Your task to perform on an android device: turn vacation reply on in the gmail app Image 0: 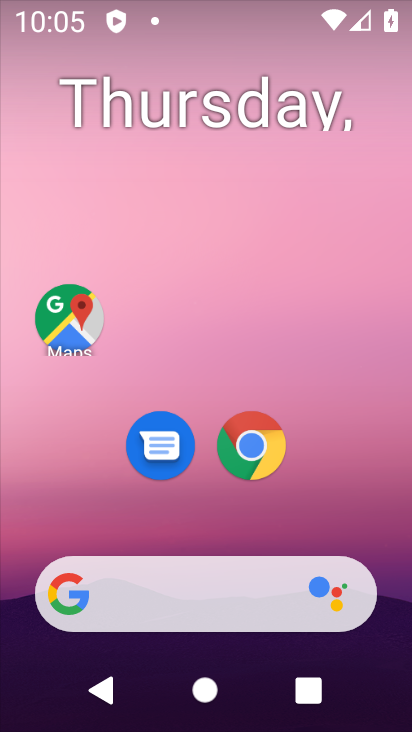
Step 0: drag from (332, 519) to (225, 58)
Your task to perform on an android device: turn vacation reply on in the gmail app Image 1: 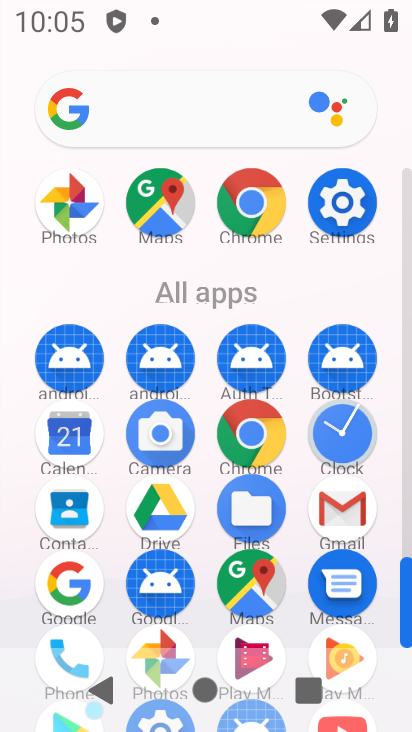
Step 1: click (338, 505)
Your task to perform on an android device: turn vacation reply on in the gmail app Image 2: 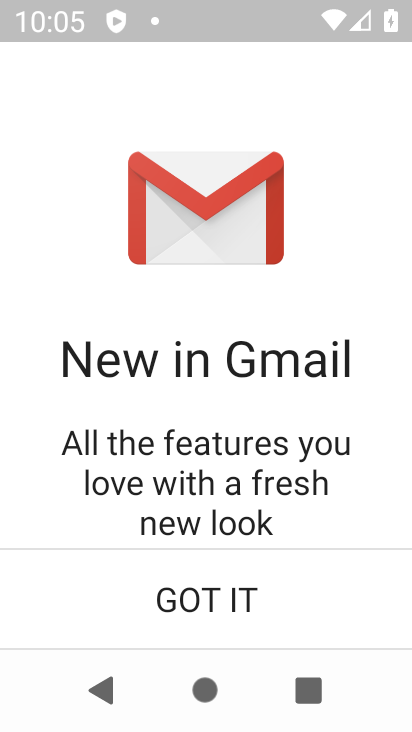
Step 2: click (267, 607)
Your task to perform on an android device: turn vacation reply on in the gmail app Image 3: 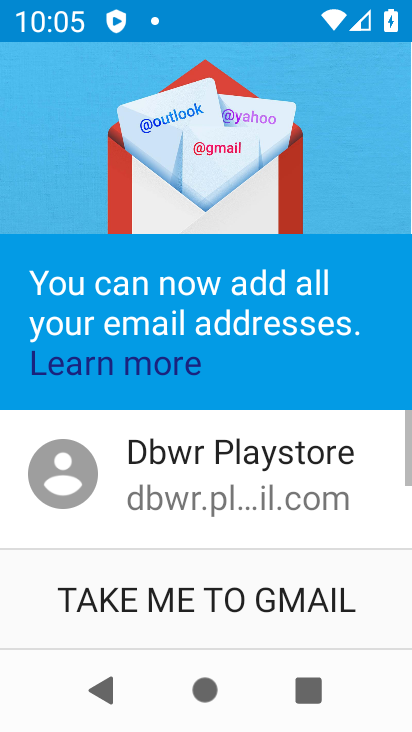
Step 3: click (267, 607)
Your task to perform on an android device: turn vacation reply on in the gmail app Image 4: 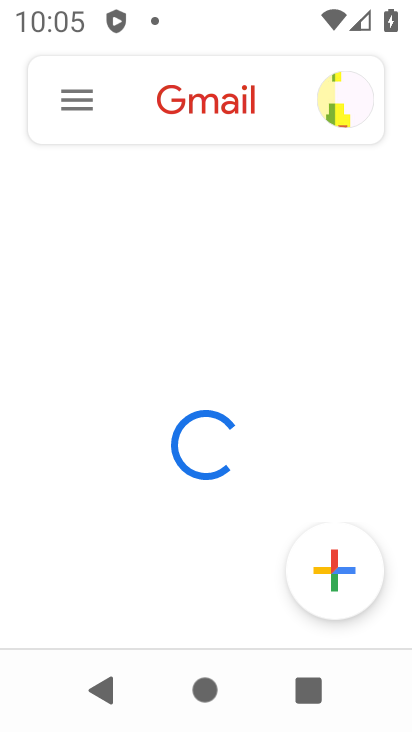
Step 4: click (62, 89)
Your task to perform on an android device: turn vacation reply on in the gmail app Image 5: 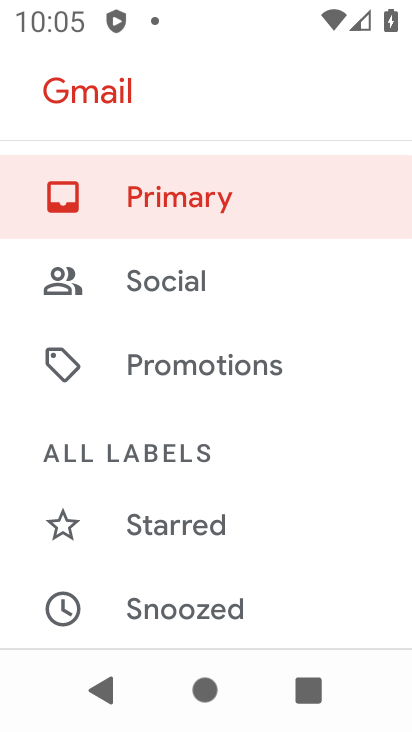
Step 5: click (145, 449)
Your task to perform on an android device: turn vacation reply on in the gmail app Image 6: 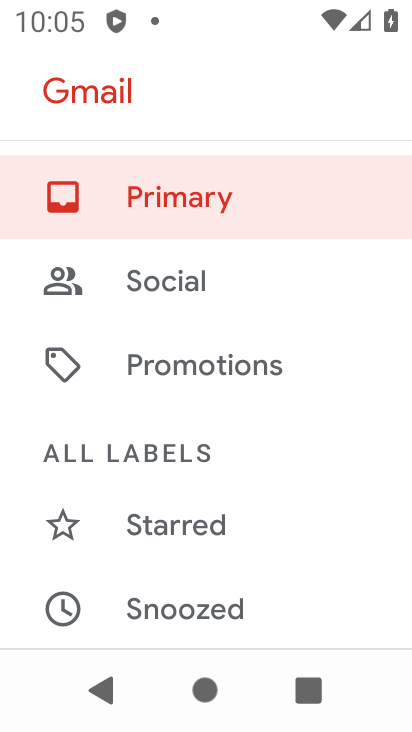
Step 6: drag from (107, 608) to (216, 113)
Your task to perform on an android device: turn vacation reply on in the gmail app Image 7: 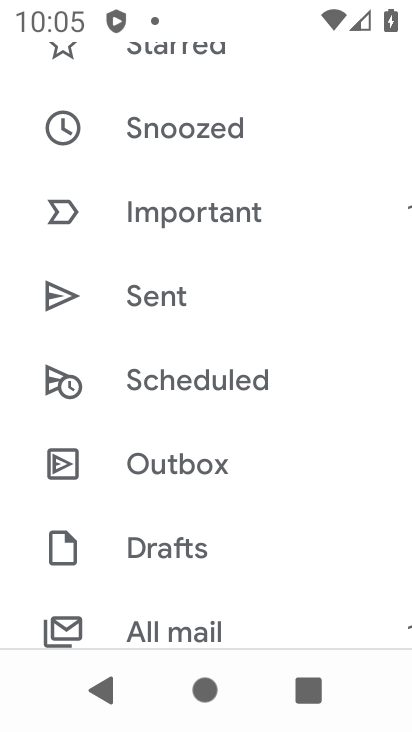
Step 7: drag from (259, 165) to (253, 130)
Your task to perform on an android device: turn vacation reply on in the gmail app Image 8: 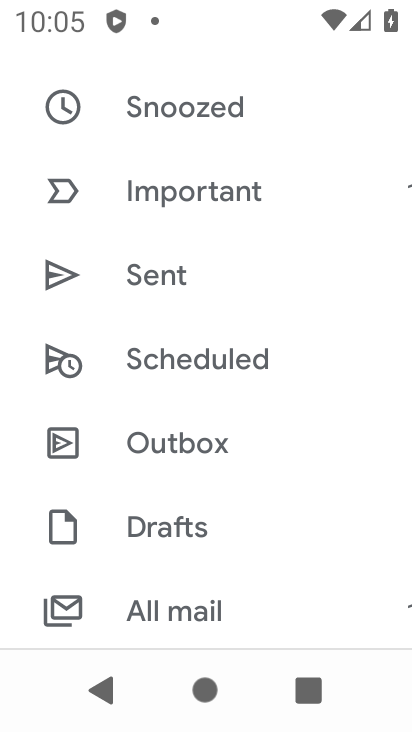
Step 8: drag from (193, 611) to (245, 93)
Your task to perform on an android device: turn vacation reply on in the gmail app Image 9: 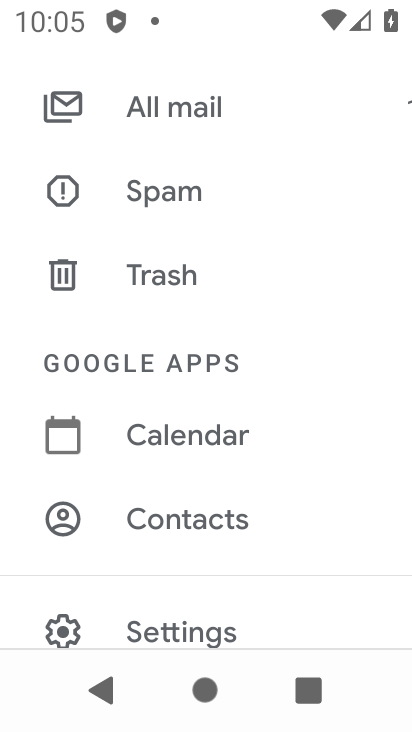
Step 9: click (158, 616)
Your task to perform on an android device: turn vacation reply on in the gmail app Image 10: 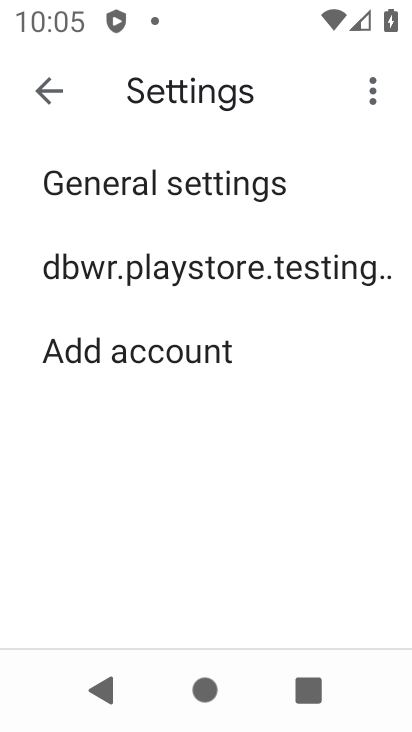
Step 10: click (165, 294)
Your task to perform on an android device: turn vacation reply on in the gmail app Image 11: 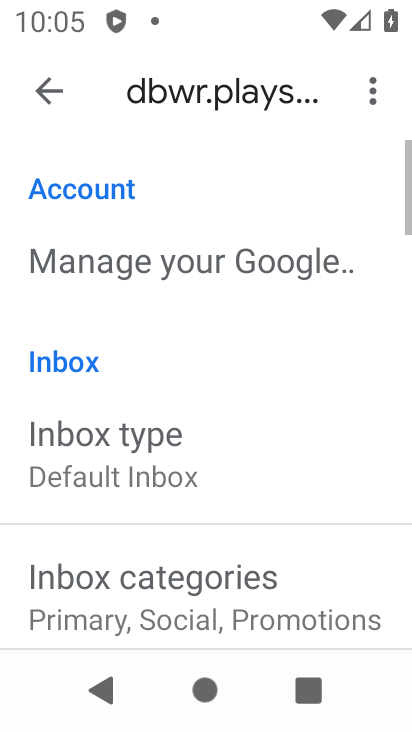
Step 11: task complete